Your task to perform on an android device: toggle location history Image 0: 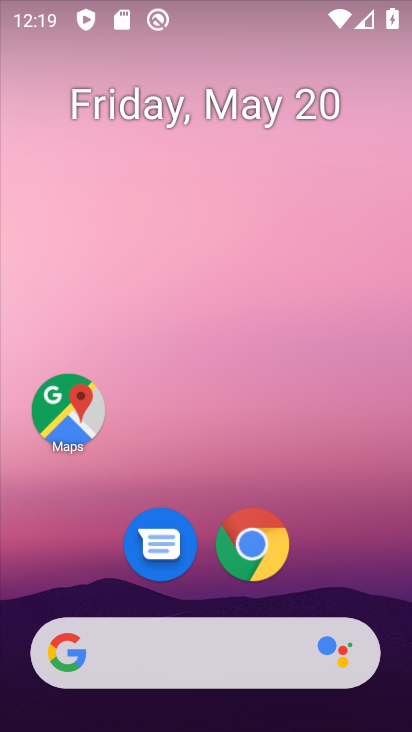
Step 0: drag from (345, 571) to (348, 41)
Your task to perform on an android device: toggle location history Image 1: 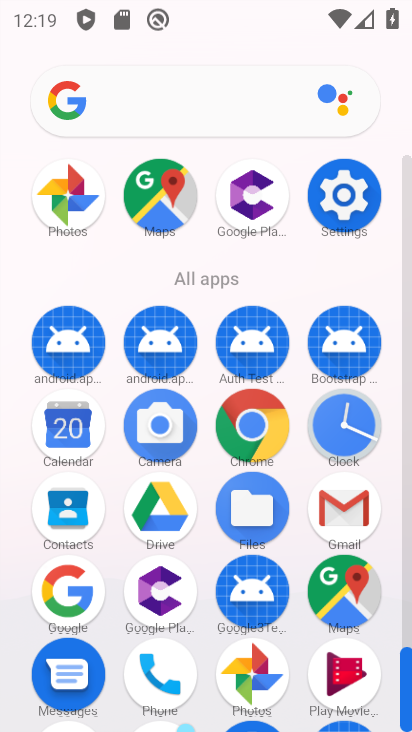
Step 1: click (344, 208)
Your task to perform on an android device: toggle location history Image 2: 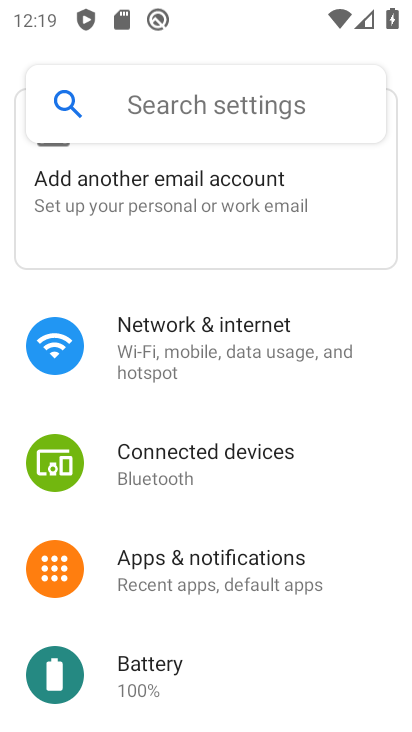
Step 2: drag from (252, 618) to (263, 177)
Your task to perform on an android device: toggle location history Image 3: 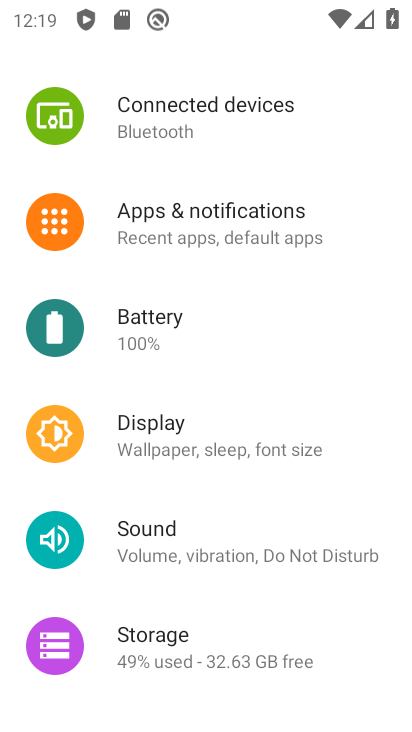
Step 3: drag from (209, 603) to (249, 154)
Your task to perform on an android device: toggle location history Image 4: 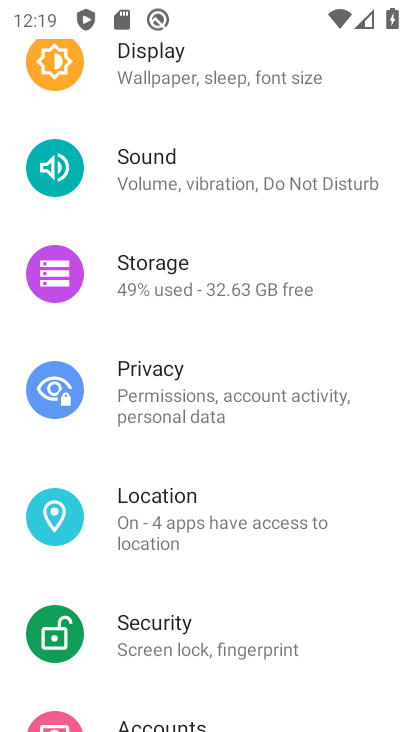
Step 4: click (273, 497)
Your task to perform on an android device: toggle location history Image 5: 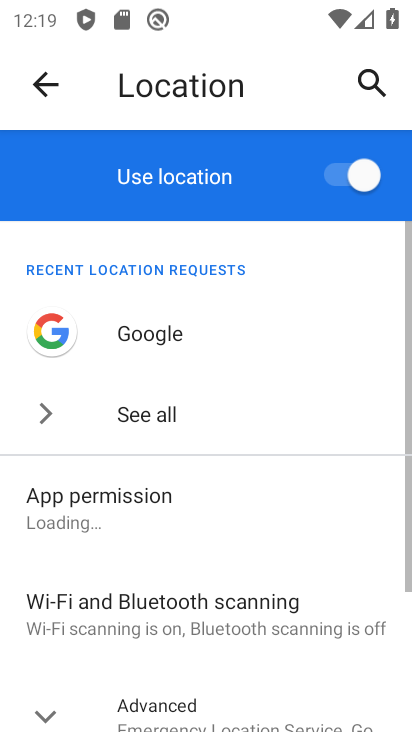
Step 5: drag from (267, 488) to (278, 128)
Your task to perform on an android device: toggle location history Image 6: 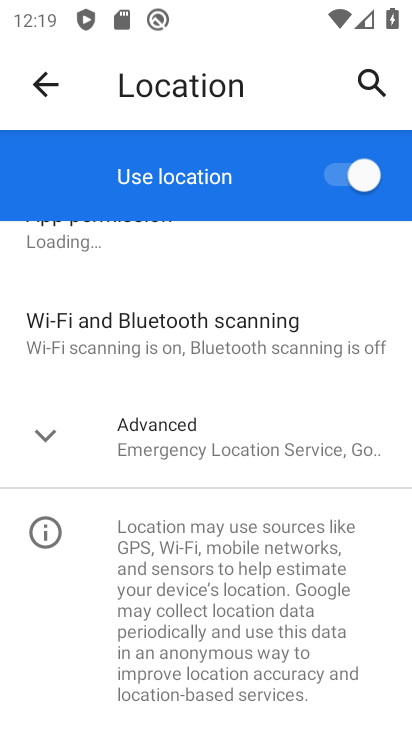
Step 6: click (176, 431)
Your task to perform on an android device: toggle location history Image 7: 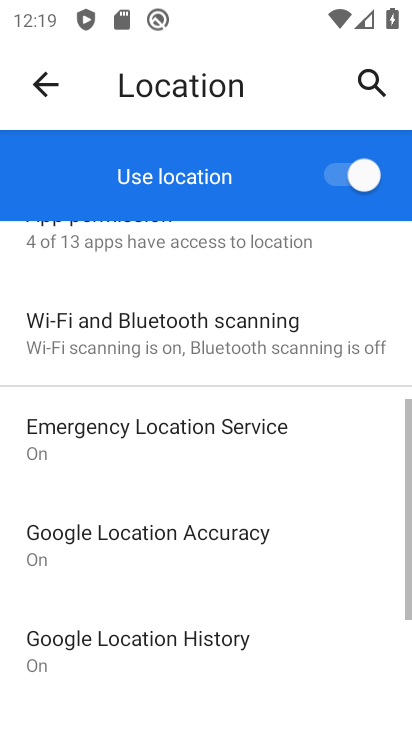
Step 7: drag from (163, 600) to (184, 195)
Your task to perform on an android device: toggle location history Image 8: 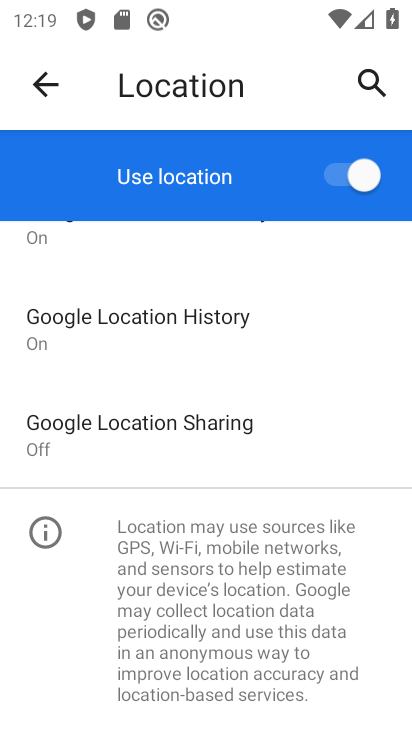
Step 8: click (202, 341)
Your task to perform on an android device: toggle location history Image 9: 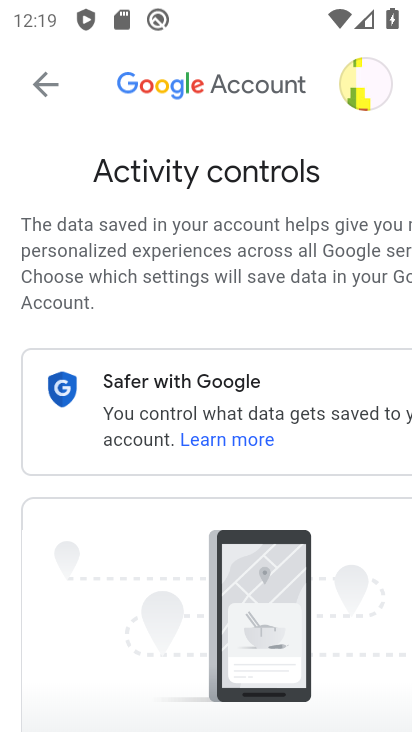
Step 9: drag from (307, 397) to (292, 119)
Your task to perform on an android device: toggle location history Image 10: 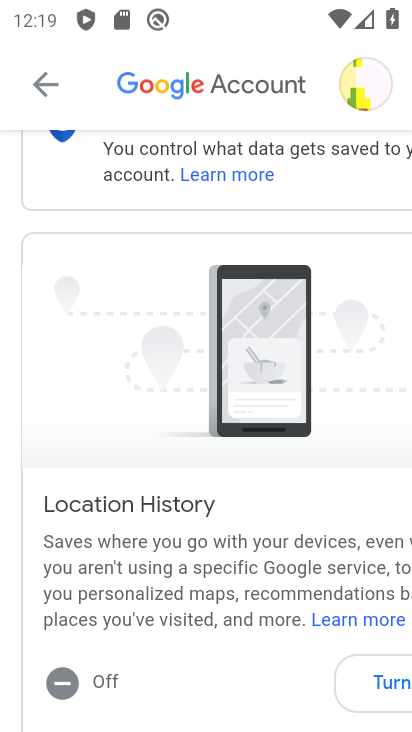
Step 10: drag from (287, 640) to (310, 148)
Your task to perform on an android device: toggle location history Image 11: 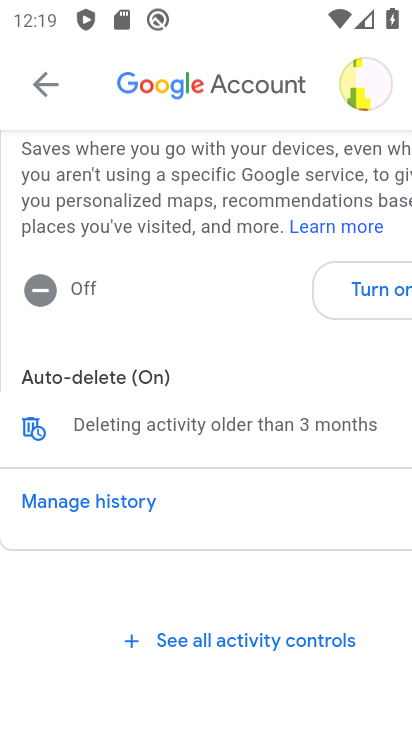
Step 11: click (366, 310)
Your task to perform on an android device: toggle location history Image 12: 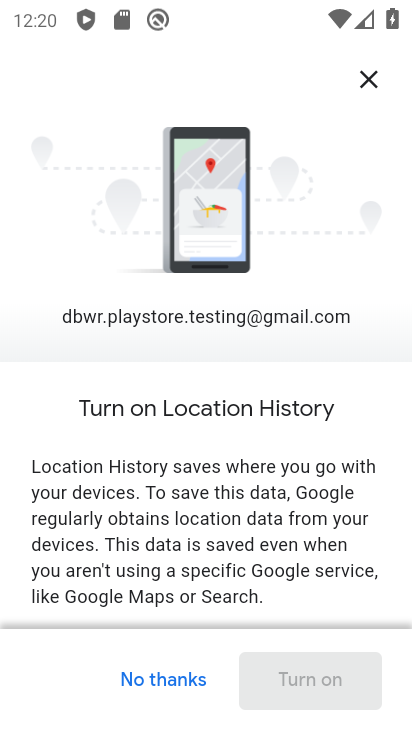
Step 12: drag from (294, 621) to (283, 119)
Your task to perform on an android device: toggle location history Image 13: 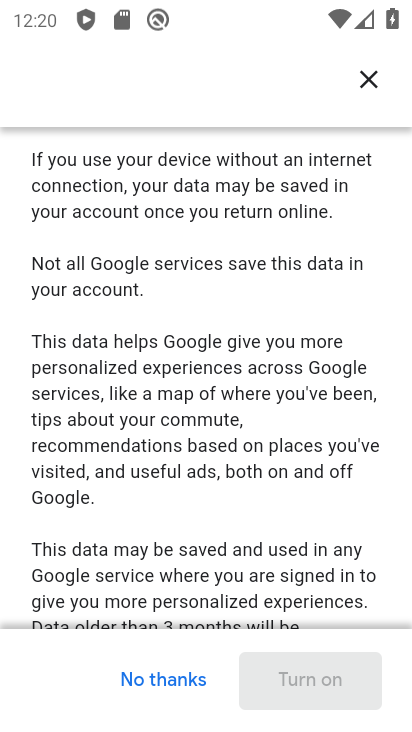
Step 13: drag from (294, 612) to (286, 128)
Your task to perform on an android device: toggle location history Image 14: 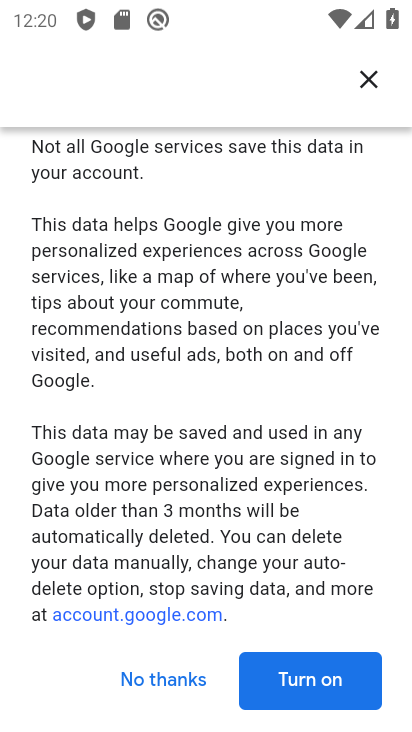
Step 14: click (299, 684)
Your task to perform on an android device: toggle location history Image 15: 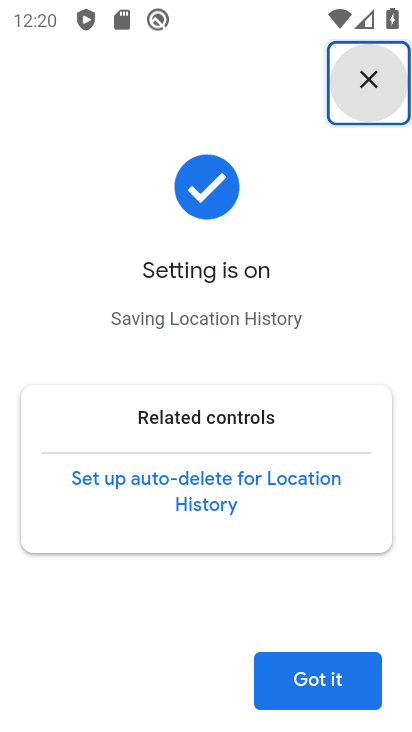
Step 15: click (299, 684)
Your task to perform on an android device: toggle location history Image 16: 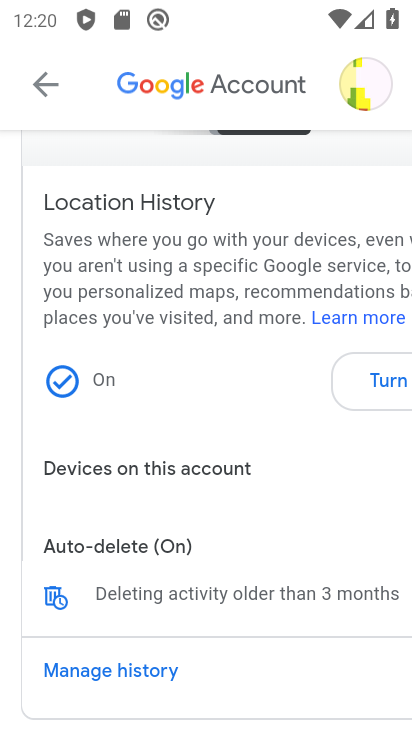
Step 16: task complete